Your task to perform on an android device: see sites visited before in the chrome app Image 0: 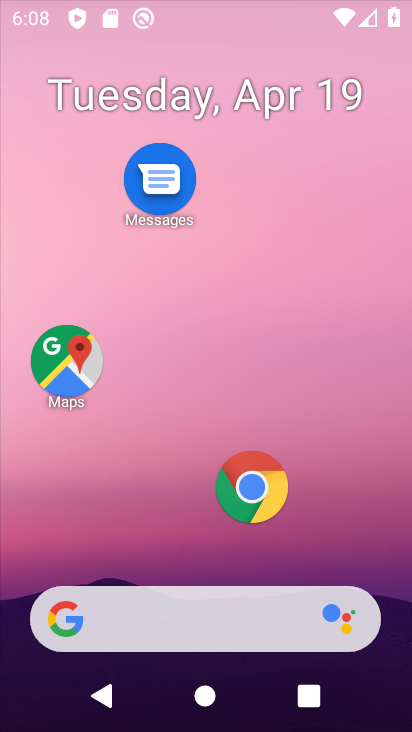
Step 0: drag from (196, 542) to (274, 45)
Your task to perform on an android device: see sites visited before in the chrome app Image 1: 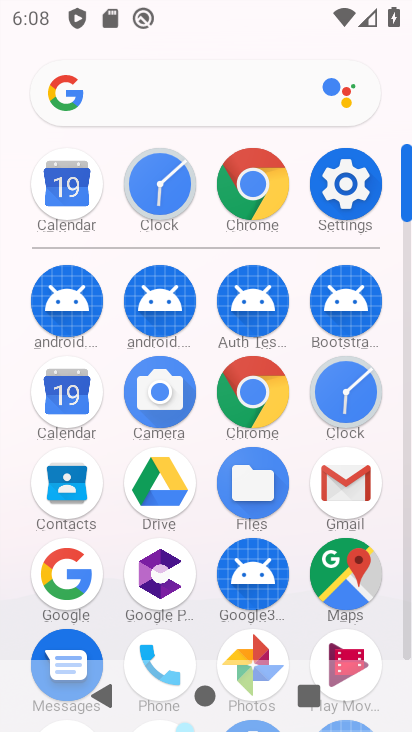
Step 1: click (248, 387)
Your task to perform on an android device: see sites visited before in the chrome app Image 2: 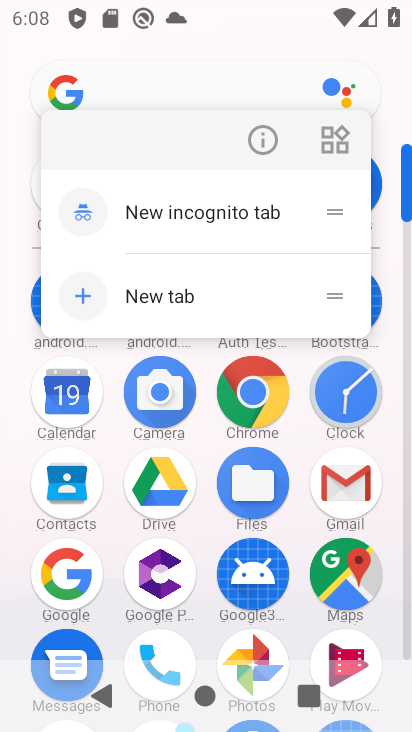
Step 2: click (248, 387)
Your task to perform on an android device: see sites visited before in the chrome app Image 3: 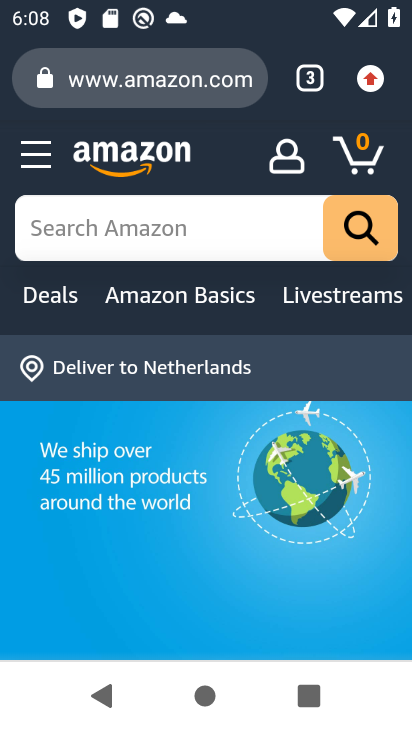
Step 3: click (373, 70)
Your task to perform on an android device: see sites visited before in the chrome app Image 4: 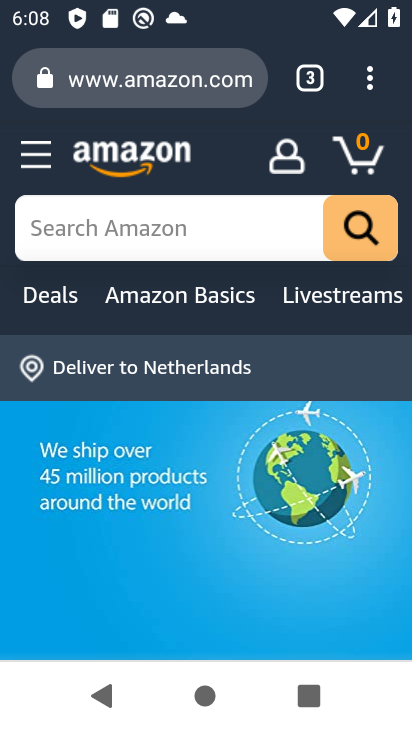
Step 4: click (372, 73)
Your task to perform on an android device: see sites visited before in the chrome app Image 5: 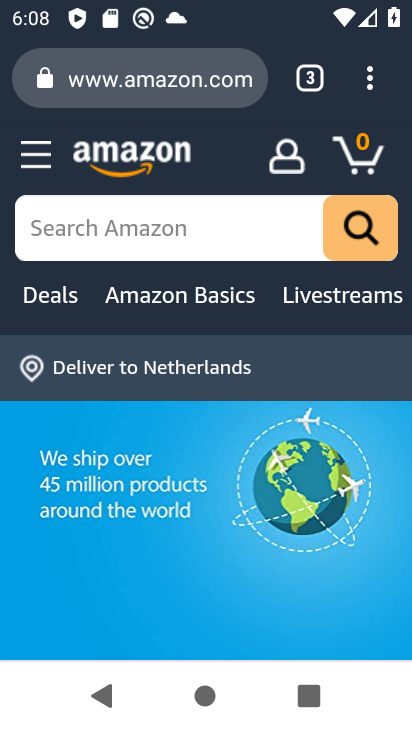
Step 5: click (369, 73)
Your task to perform on an android device: see sites visited before in the chrome app Image 6: 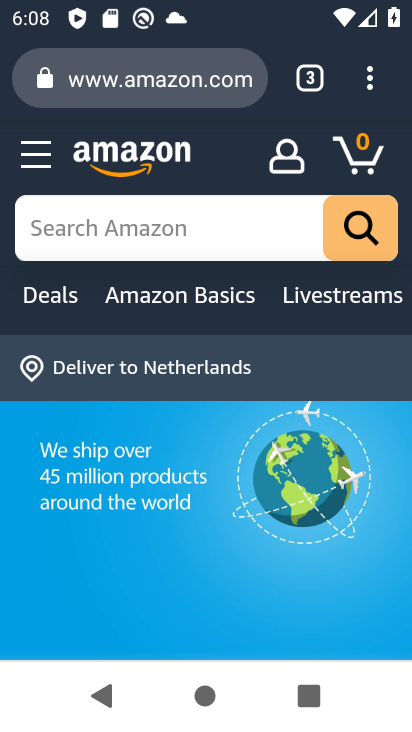
Step 6: click (373, 75)
Your task to perform on an android device: see sites visited before in the chrome app Image 7: 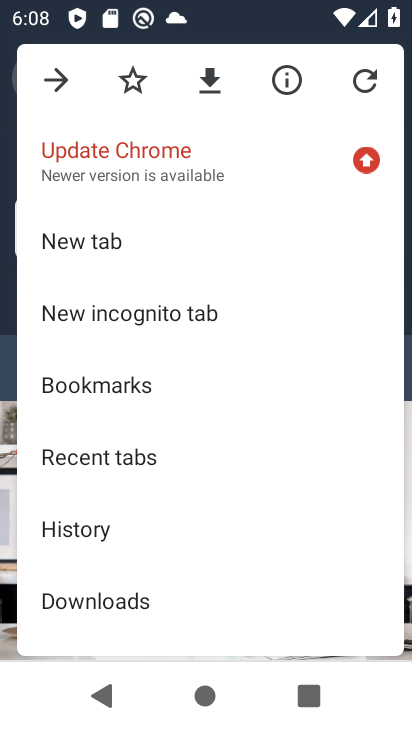
Step 7: click (121, 523)
Your task to perform on an android device: see sites visited before in the chrome app Image 8: 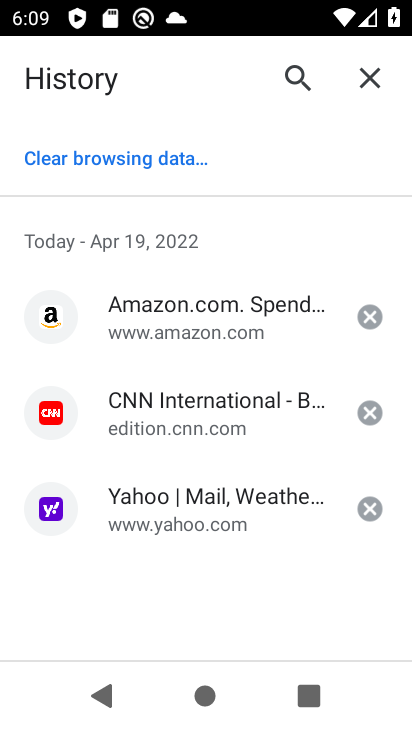
Step 8: task complete